Your task to perform on an android device: snooze an email in the gmail app Image 0: 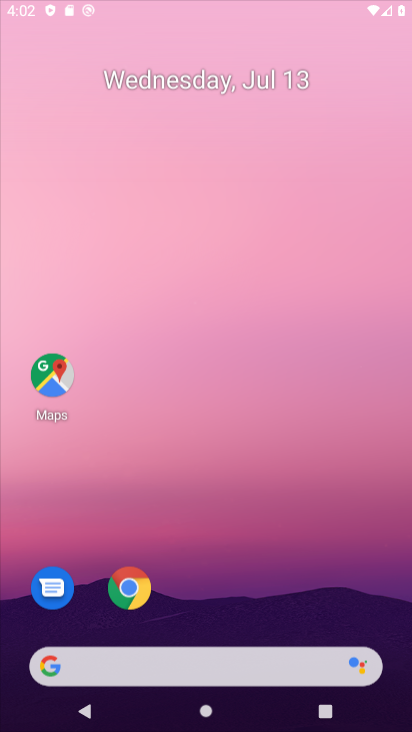
Step 0: drag from (27, 692) to (326, 15)
Your task to perform on an android device: snooze an email in the gmail app Image 1: 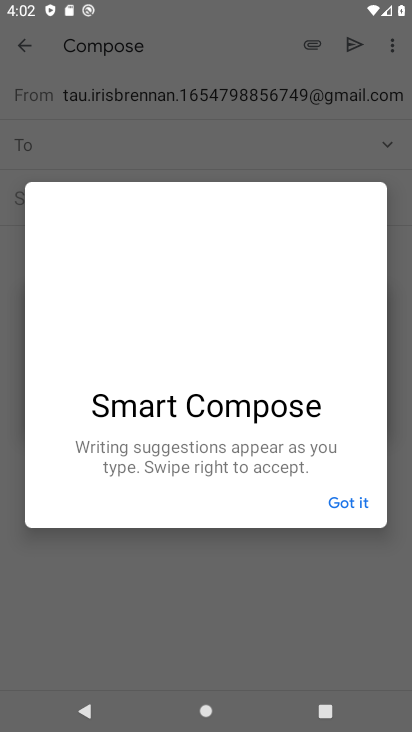
Step 1: press home button
Your task to perform on an android device: snooze an email in the gmail app Image 2: 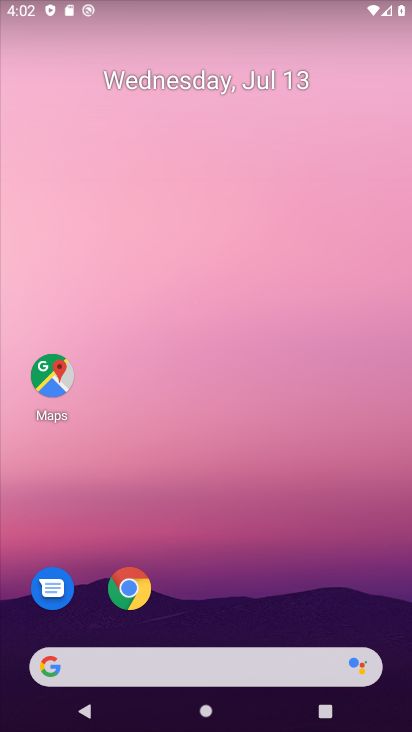
Step 2: drag from (37, 701) to (364, 38)
Your task to perform on an android device: snooze an email in the gmail app Image 3: 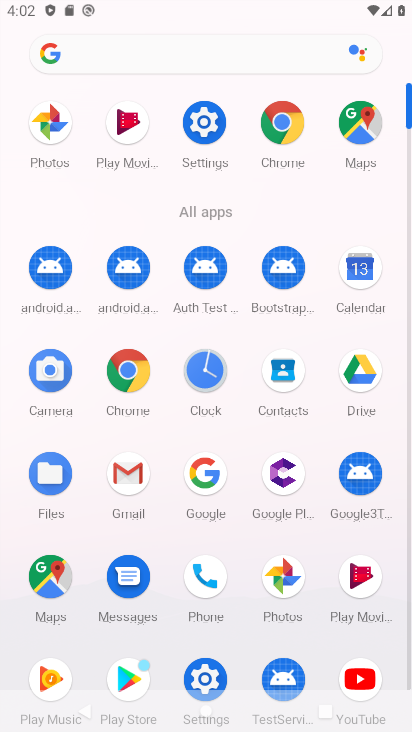
Step 3: click (129, 472)
Your task to perform on an android device: snooze an email in the gmail app Image 4: 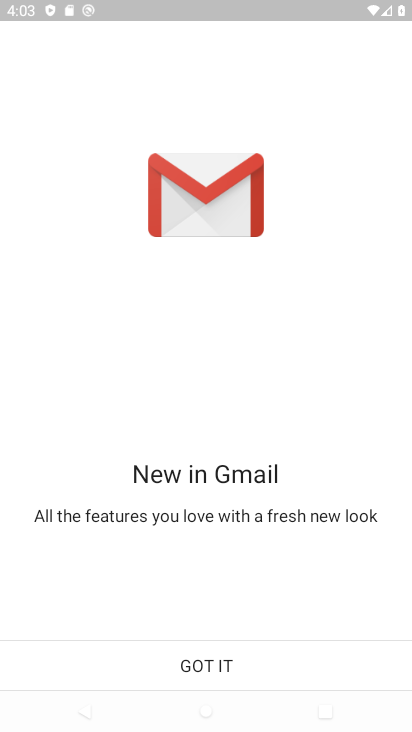
Step 4: click (199, 657)
Your task to perform on an android device: snooze an email in the gmail app Image 5: 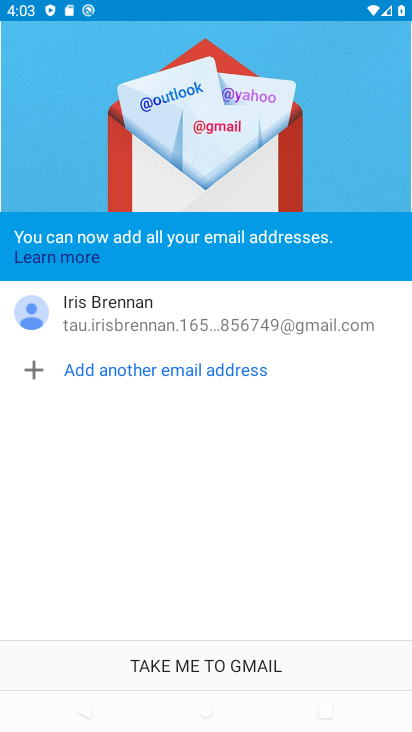
Step 5: click (199, 665)
Your task to perform on an android device: snooze an email in the gmail app Image 6: 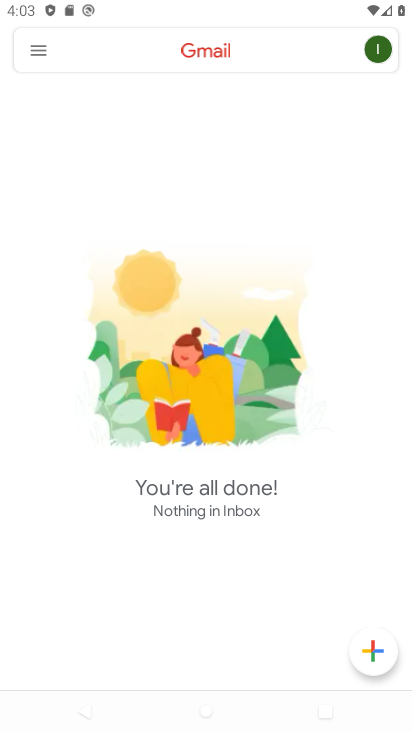
Step 6: click (38, 52)
Your task to perform on an android device: snooze an email in the gmail app Image 7: 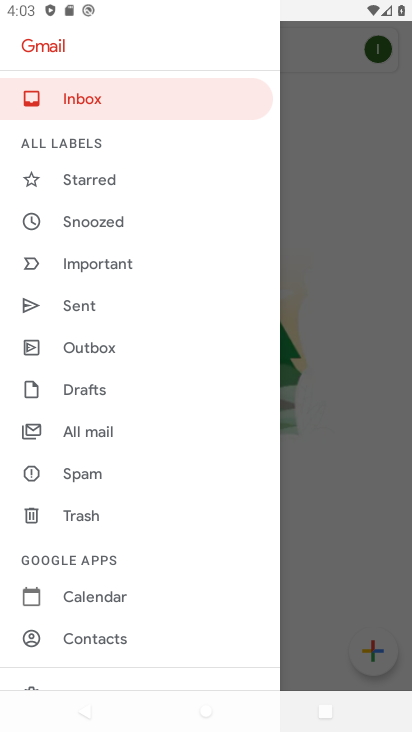
Step 7: click (87, 224)
Your task to perform on an android device: snooze an email in the gmail app Image 8: 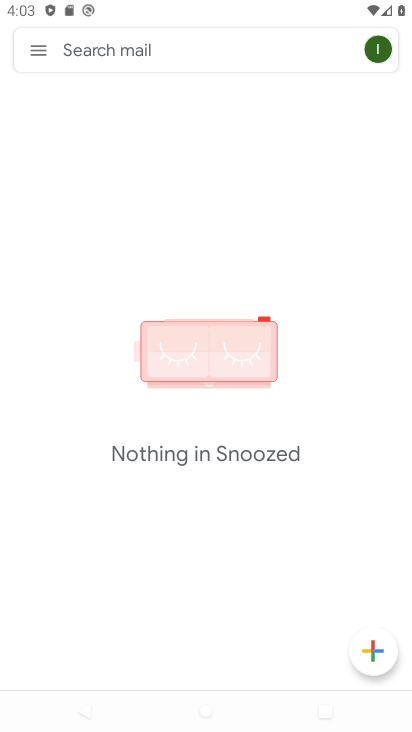
Step 8: task complete